Your task to perform on an android device: choose inbox layout in the gmail app Image 0: 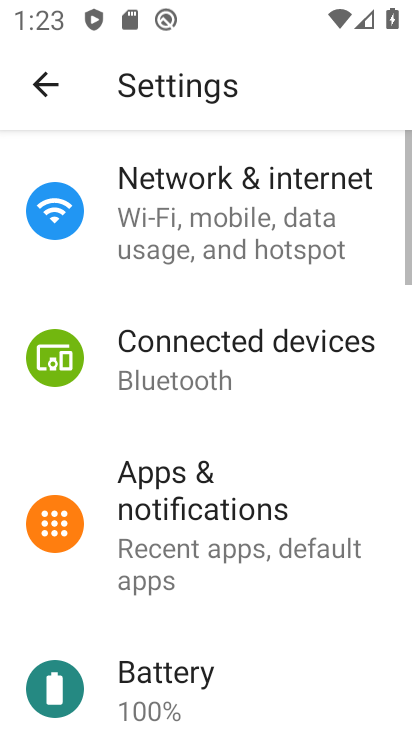
Step 0: press home button
Your task to perform on an android device: choose inbox layout in the gmail app Image 1: 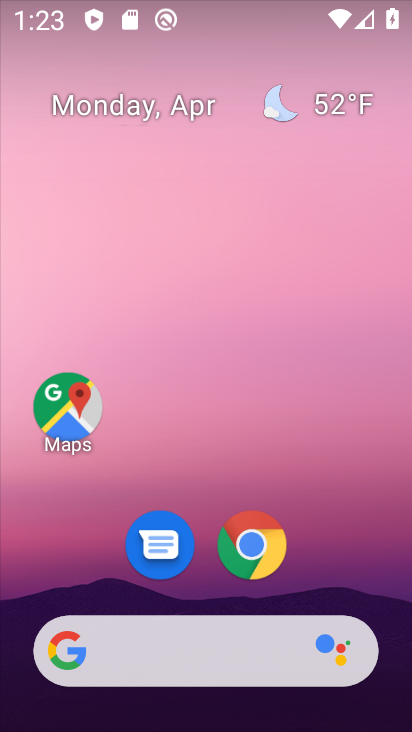
Step 1: drag from (209, 722) to (213, 70)
Your task to perform on an android device: choose inbox layout in the gmail app Image 2: 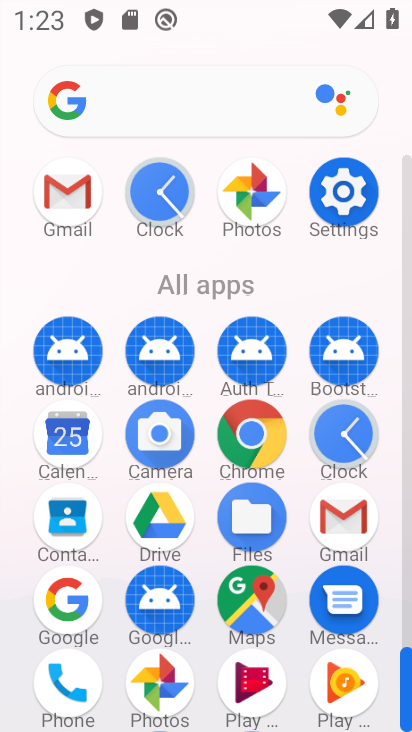
Step 2: click (335, 510)
Your task to perform on an android device: choose inbox layout in the gmail app Image 3: 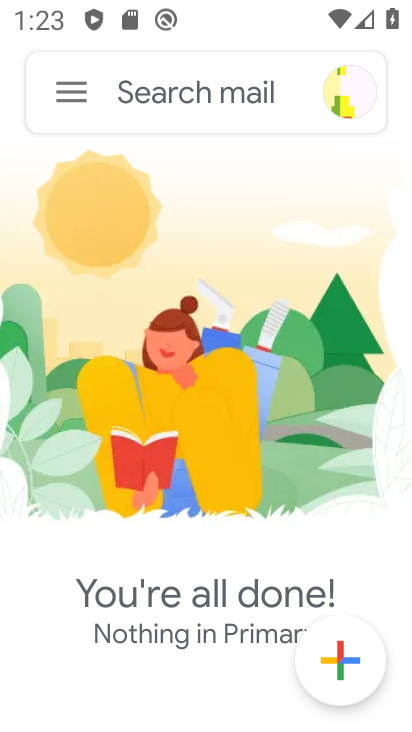
Step 3: click (71, 87)
Your task to perform on an android device: choose inbox layout in the gmail app Image 4: 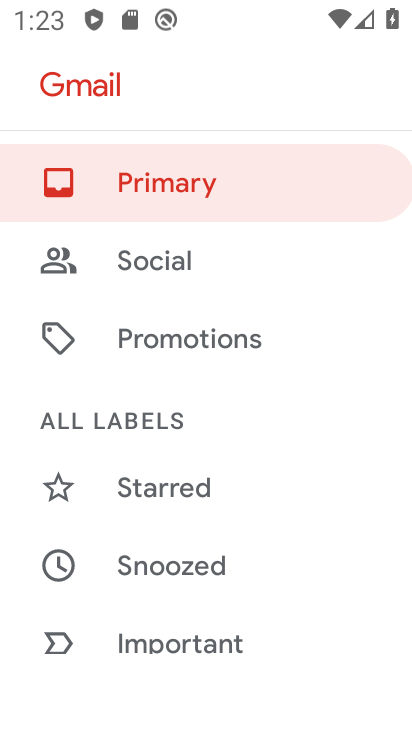
Step 4: drag from (176, 672) to (175, 130)
Your task to perform on an android device: choose inbox layout in the gmail app Image 5: 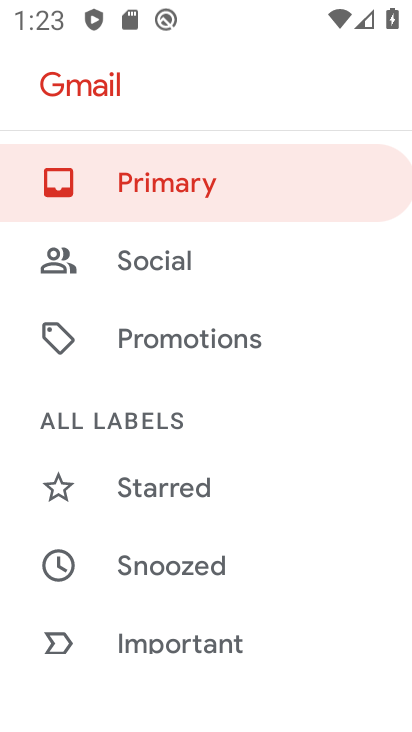
Step 5: drag from (176, 648) to (180, 128)
Your task to perform on an android device: choose inbox layout in the gmail app Image 6: 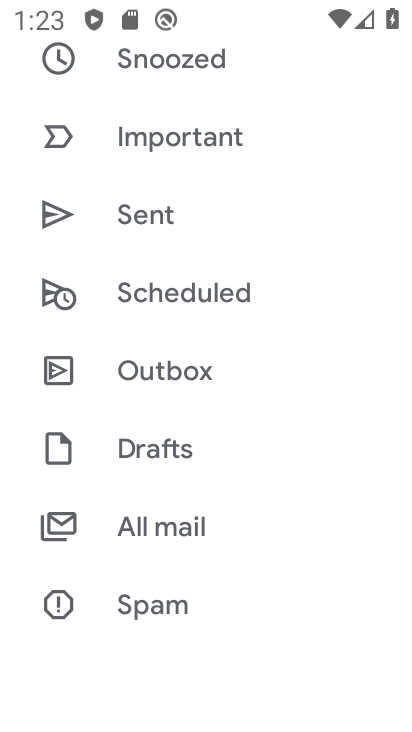
Step 6: drag from (163, 629) to (163, 137)
Your task to perform on an android device: choose inbox layout in the gmail app Image 7: 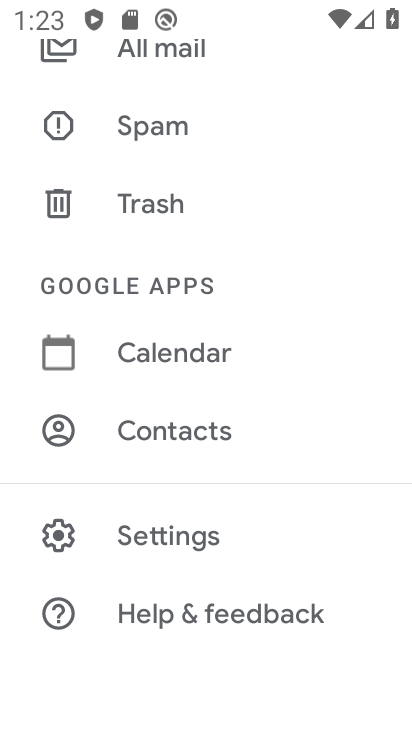
Step 7: click (158, 531)
Your task to perform on an android device: choose inbox layout in the gmail app Image 8: 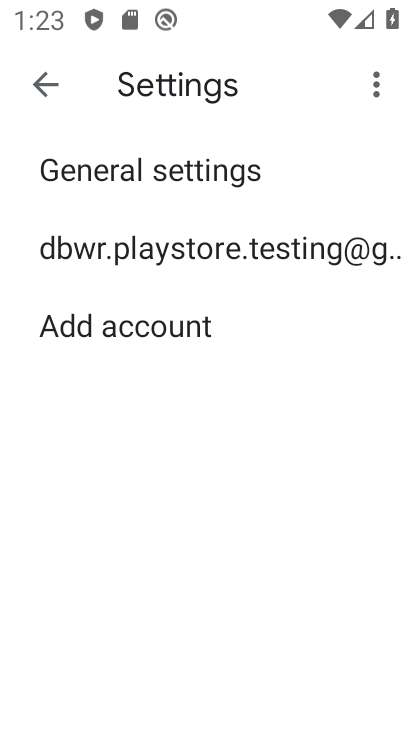
Step 8: click (188, 247)
Your task to perform on an android device: choose inbox layout in the gmail app Image 9: 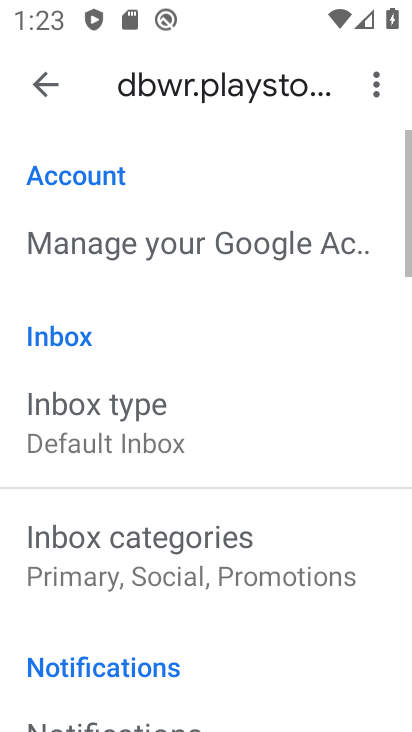
Step 9: click (115, 431)
Your task to perform on an android device: choose inbox layout in the gmail app Image 10: 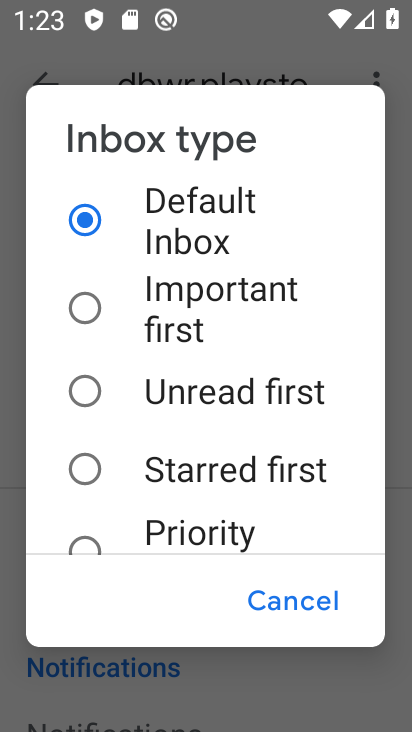
Step 10: click (81, 397)
Your task to perform on an android device: choose inbox layout in the gmail app Image 11: 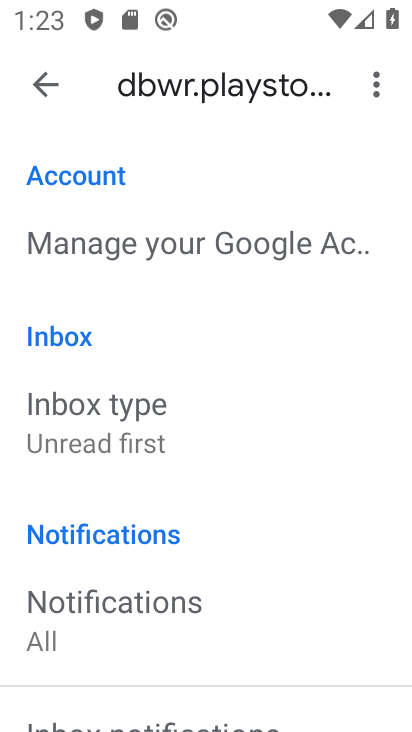
Step 11: task complete